Your task to perform on an android device: Open Google Chrome Image 0: 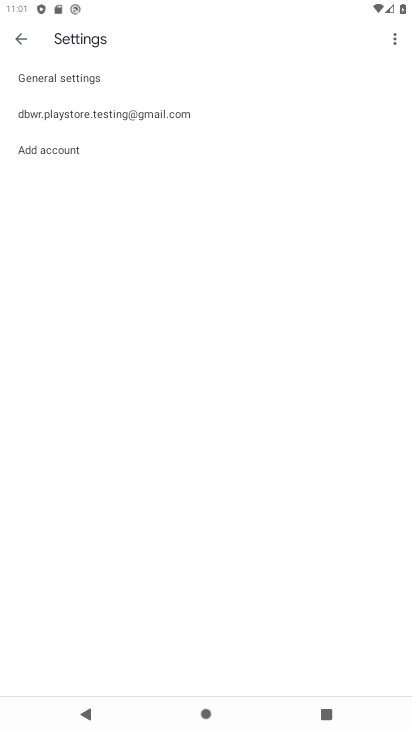
Step 0: press home button
Your task to perform on an android device: Open Google Chrome Image 1: 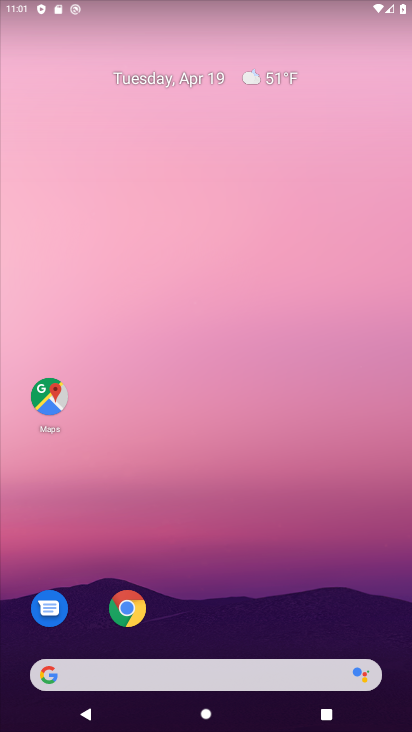
Step 1: drag from (364, 604) to (382, 113)
Your task to perform on an android device: Open Google Chrome Image 2: 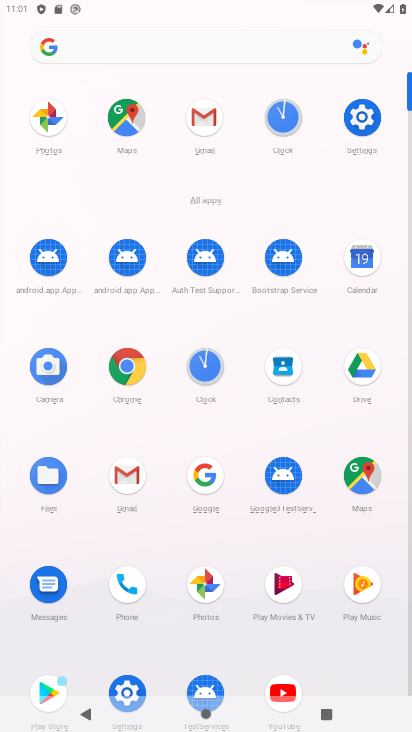
Step 2: click (127, 379)
Your task to perform on an android device: Open Google Chrome Image 3: 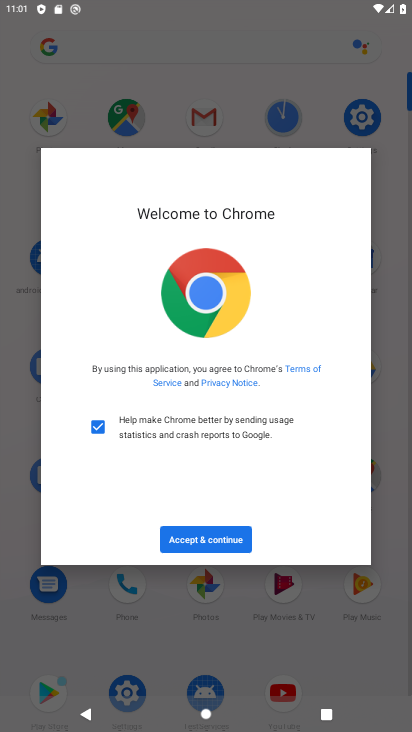
Step 3: click (217, 537)
Your task to perform on an android device: Open Google Chrome Image 4: 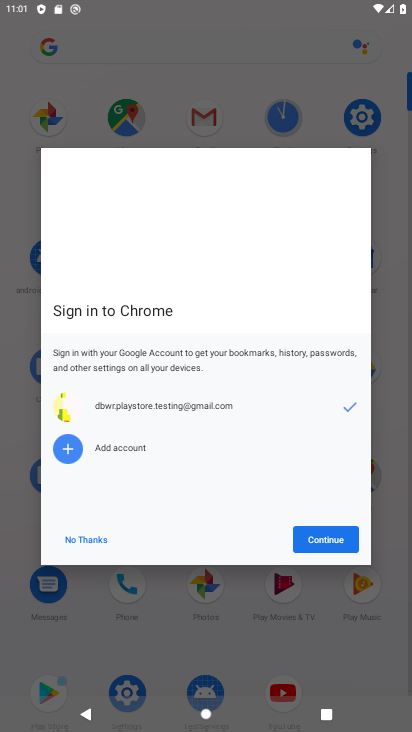
Step 4: click (307, 550)
Your task to perform on an android device: Open Google Chrome Image 5: 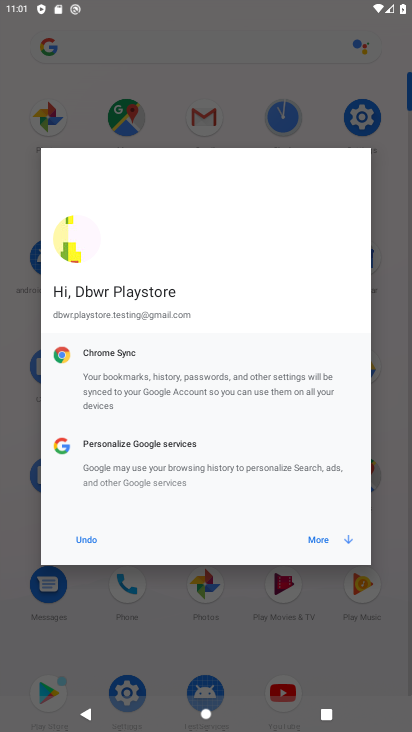
Step 5: click (315, 540)
Your task to perform on an android device: Open Google Chrome Image 6: 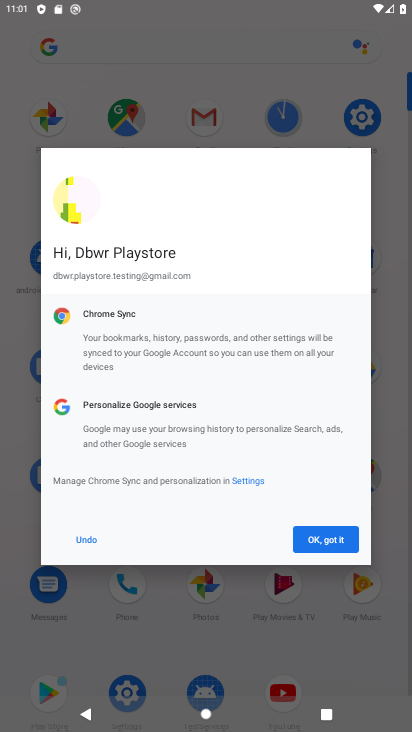
Step 6: click (315, 540)
Your task to perform on an android device: Open Google Chrome Image 7: 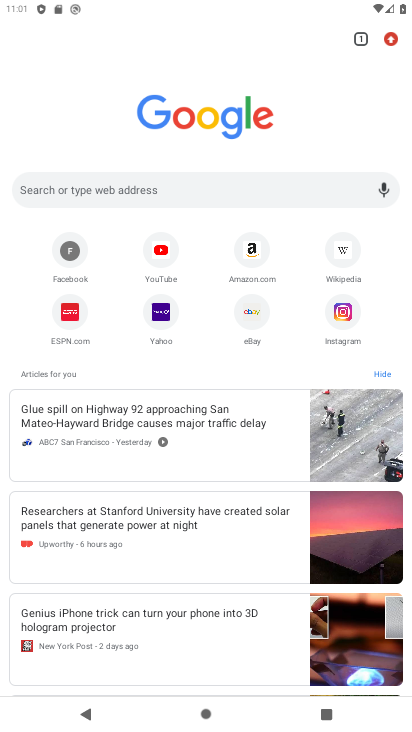
Step 7: task complete